Your task to perform on an android device: Open internet settings Image 0: 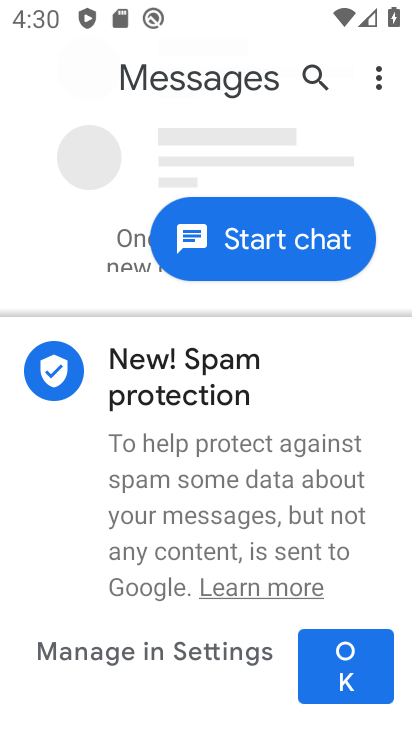
Step 0: press home button
Your task to perform on an android device: Open internet settings Image 1: 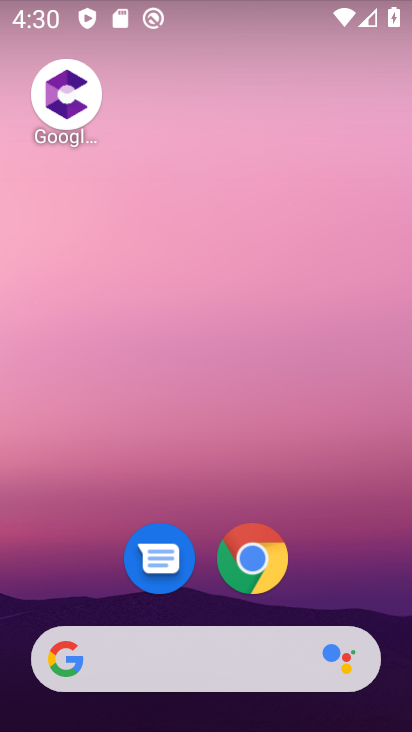
Step 1: drag from (363, 596) to (347, 38)
Your task to perform on an android device: Open internet settings Image 2: 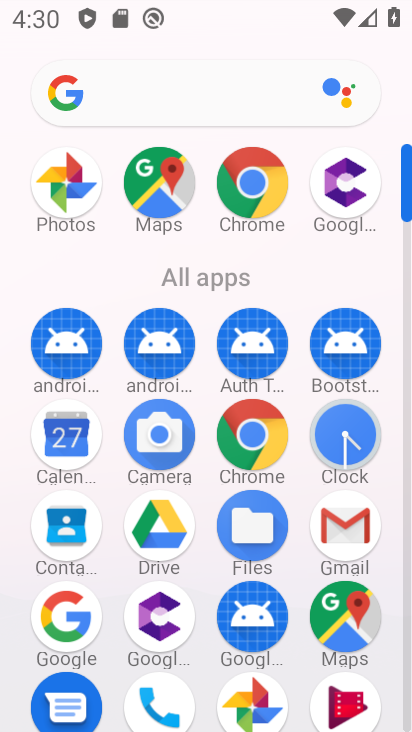
Step 2: click (403, 690)
Your task to perform on an android device: Open internet settings Image 3: 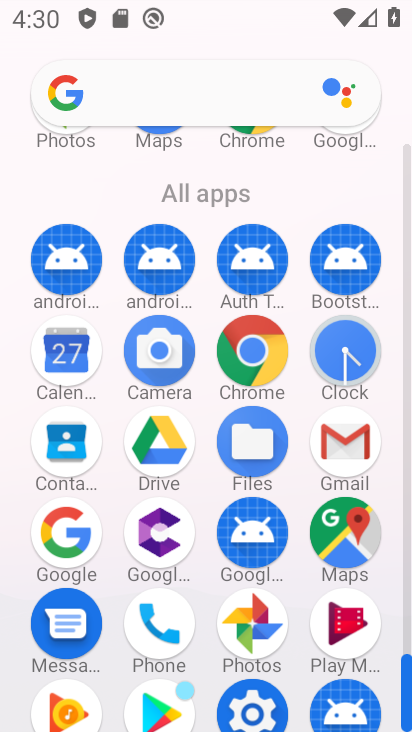
Step 3: click (260, 708)
Your task to perform on an android device: Open internet settings Image 4: 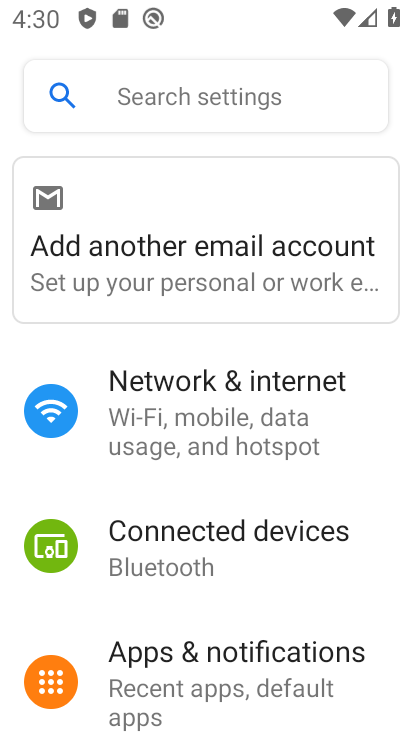
Step 4: click (243, 394)
Your task to perform on an android device: Open internet settings Image 5: 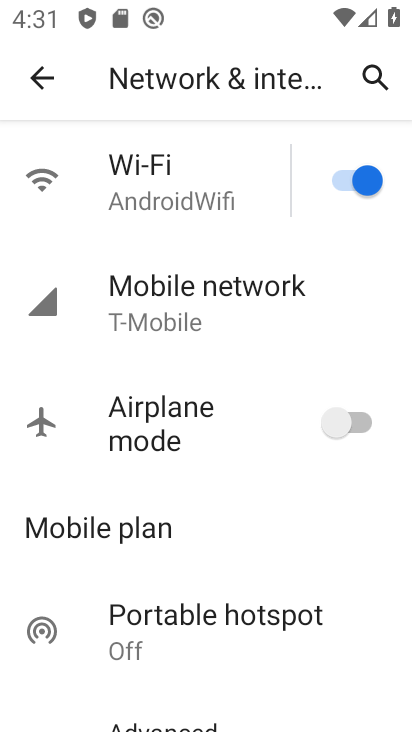
Step 5: task complete